Your task to perform on an android device: see sites visited before in the chrome app Image 0: 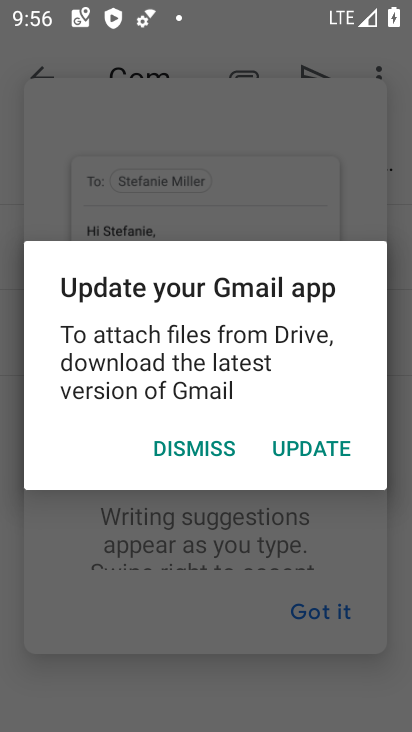
Step 0: press home button
Your task to perform on an android device: see sites visited before in the chrome app Image 1: 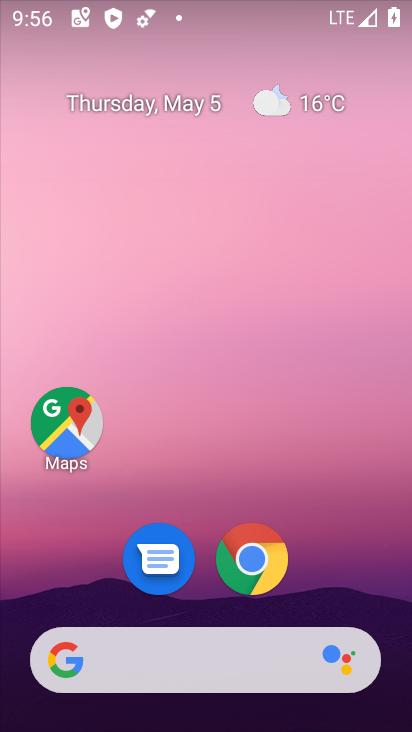
Step 1: click (264, 562)
Your task to perform on an android device: see sites visited before in the chrome app Image 2: 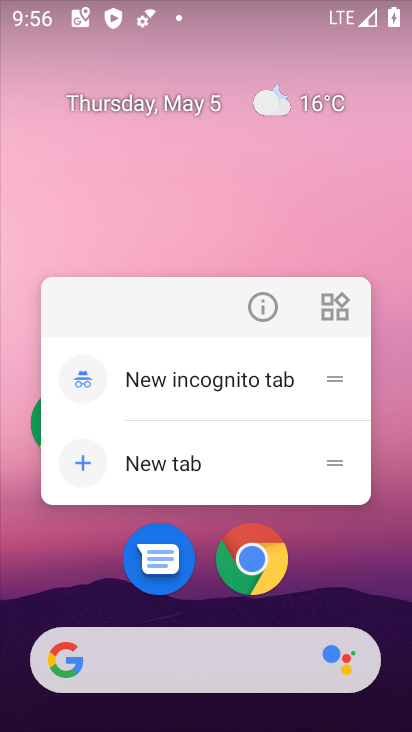
Step 2: click (253, 555)
Your task to perform on an android device: see sites visited before in the chrome app Image 3: 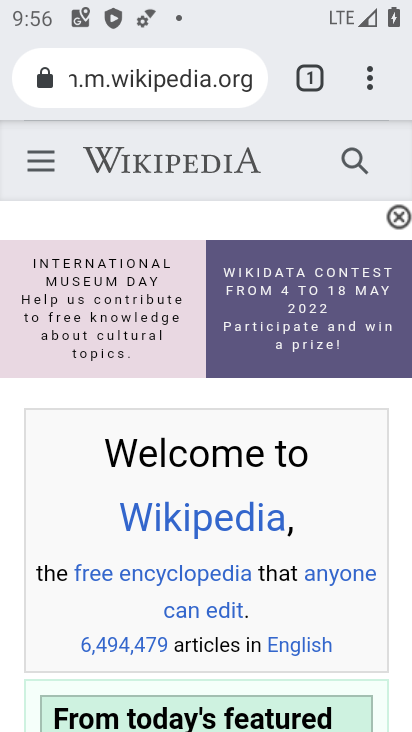
Step 3: click (363, 83)
Your task to perform on an android device: see sites visited before in the chrome app Image 4: 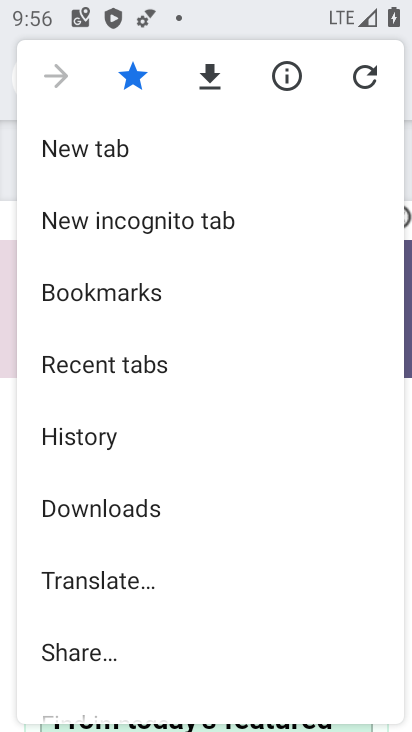
Step 4: click (106, 434)
Your task to perform on an android device: see sites visited before in the chrome app Image 5: 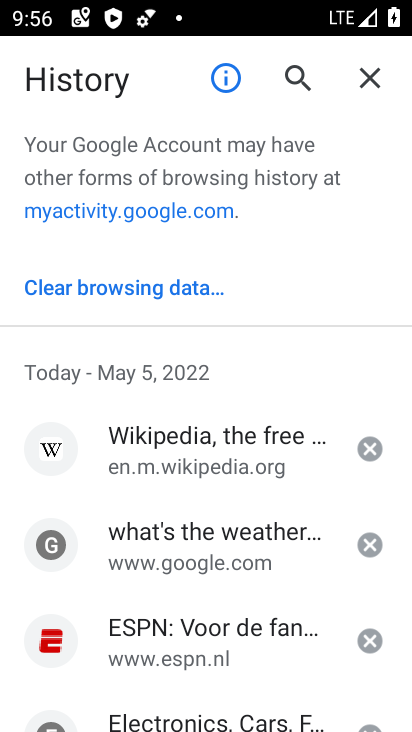
Step 5: task complete